Your task to perform on an android device: delete the emails in spam in the gmail app Image 0: 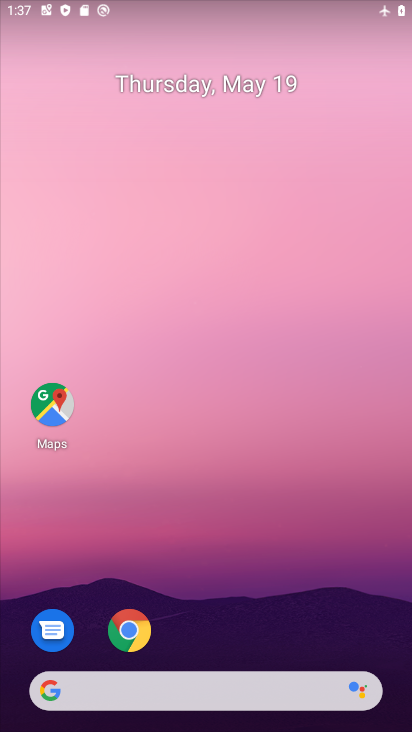
Step 0: drag from (191, 665) to (136, 58)
Your task to perform on an android device: delete the emails in spam in the gmail app Image 1: 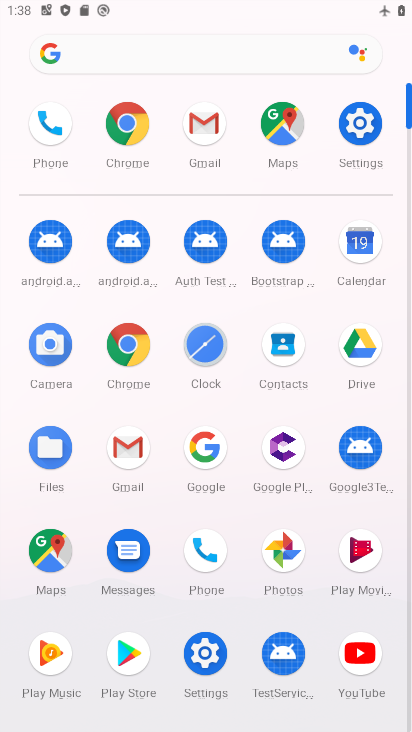
Step 1: click (106, 443)
Your task to perform on an android device: delete the emails in spam in the gmail app Image 2: 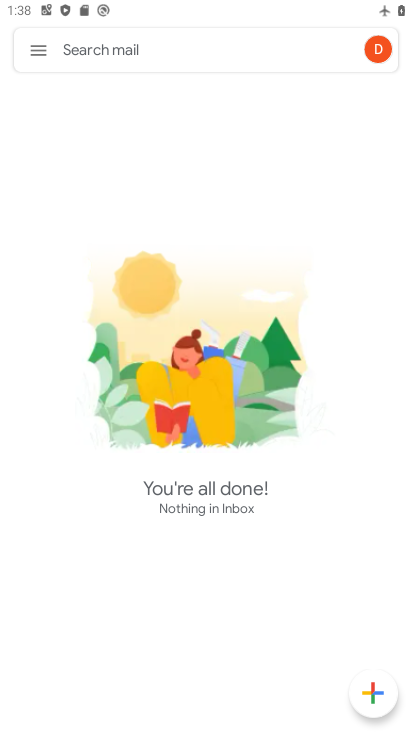
Step 2: click (29, 57)
Your task to perform on an android device: delete the emails in spam in the gmail app Image 3: 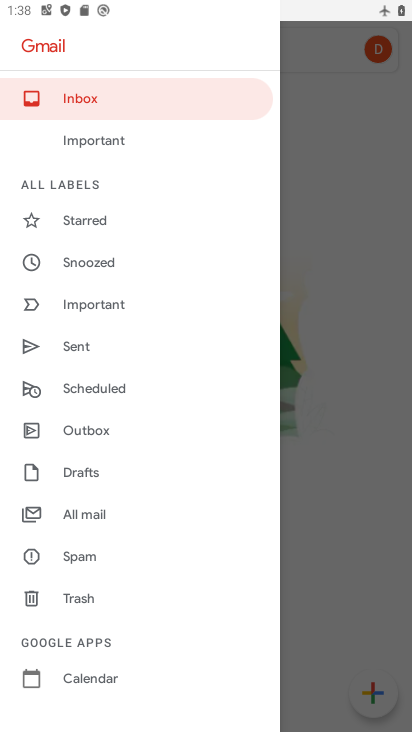
Step 3: click (75, 560)
Your task to perform on an android device: delete the emails in spam in the gmail app Image 4: 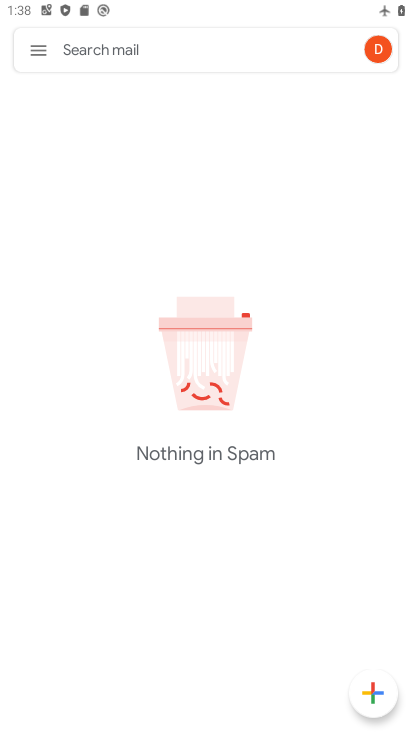
Step 4: task complete